Your task to perform on an android device: show emergency info Image 0: 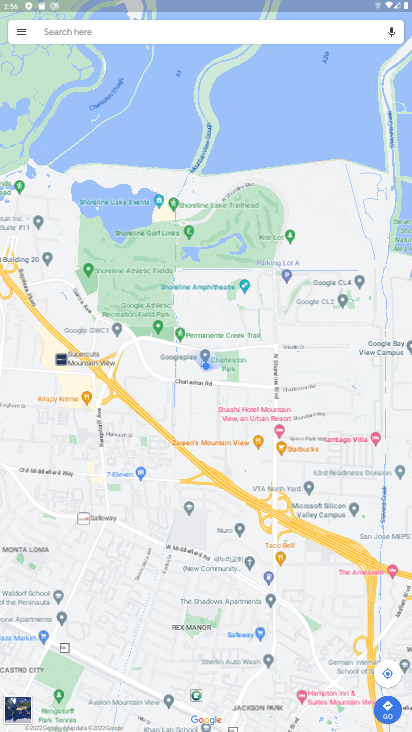
Step 0: press home button
Your task to perform on an android device: show emergency info Image 1: 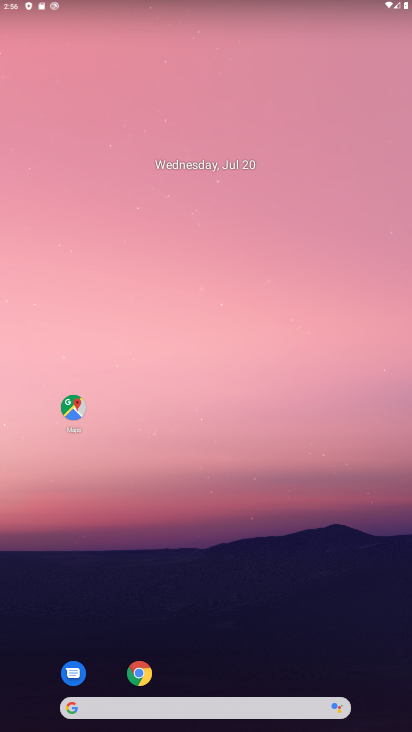
Step 1: drag from (255, 646) to (234, 57)
Your task to perform on an android device: show emergency info Image 2: 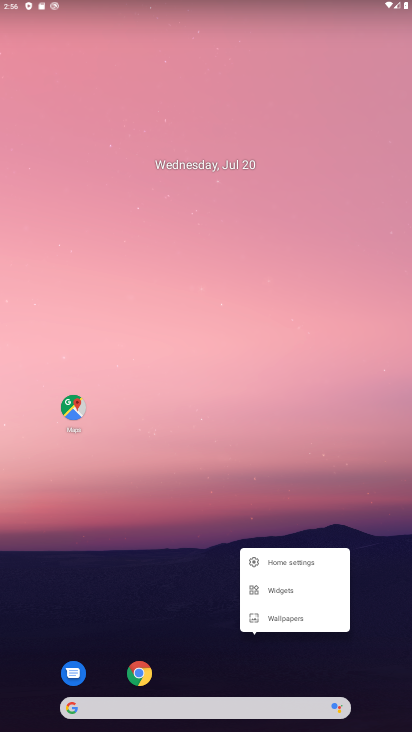
Step 2: drag from (167, 637) to (242, 237)
Your task to perform on an android device: show emergency info Image 3: 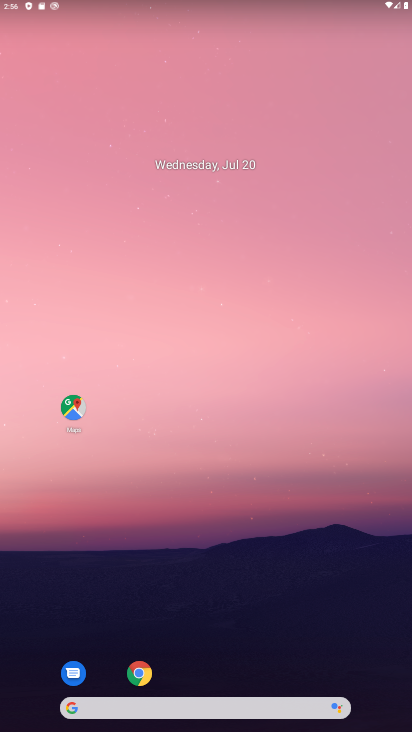
Step 3: drag from (242, 446) to (251, 186)
Your task to perform on an android device: show emergency info Image 4: 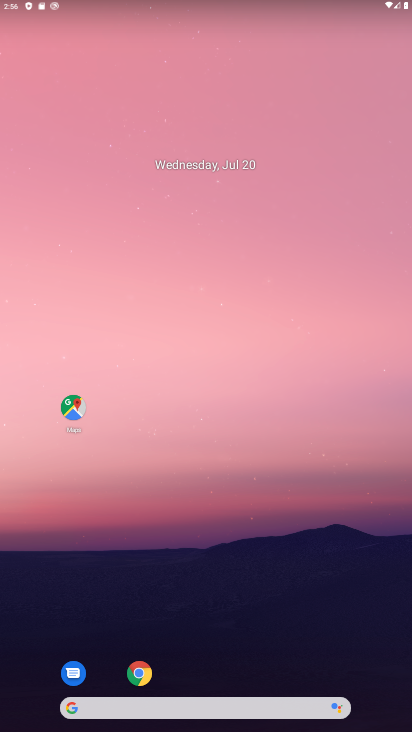
Step 4: drag from (241, 698) to (265, 146)
Your task to perform on an android device: show emergency info Image 5: 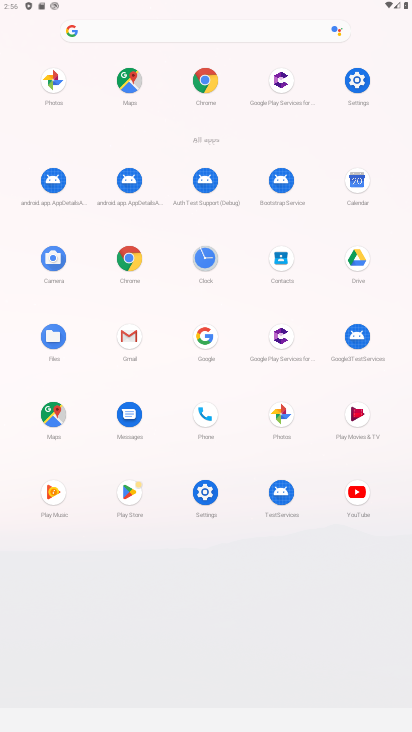
Step 5: click (358, 72)
Your task to perform on an android device: show emergency info Image 6: 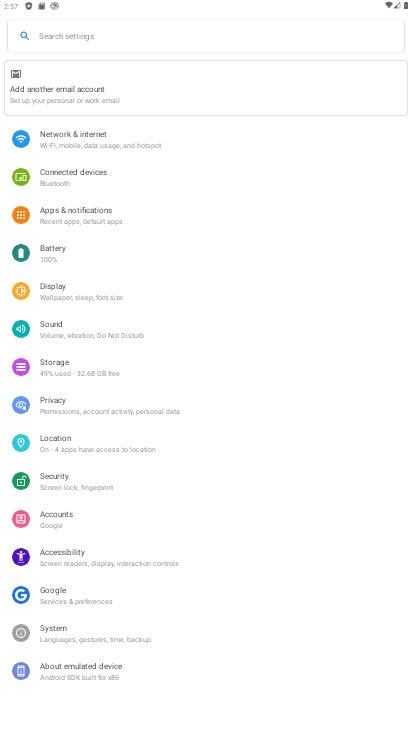
Step 6: click (59, 666)
Your task to perform on an android device: show emergency info Image 7: 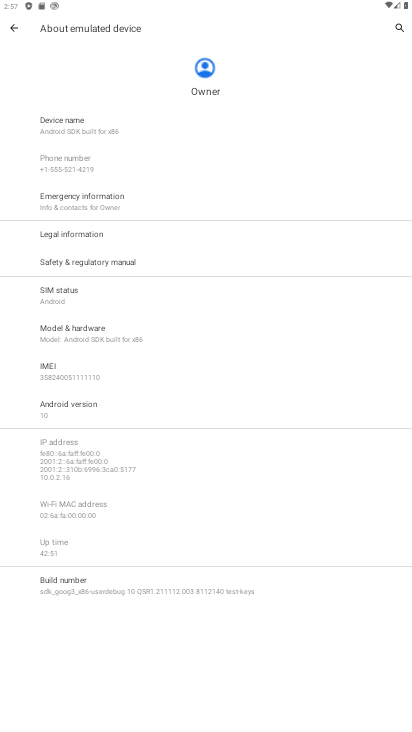
Step 7: click (25, 23)
Your task to perform on an android device: show emergency info Image 8: 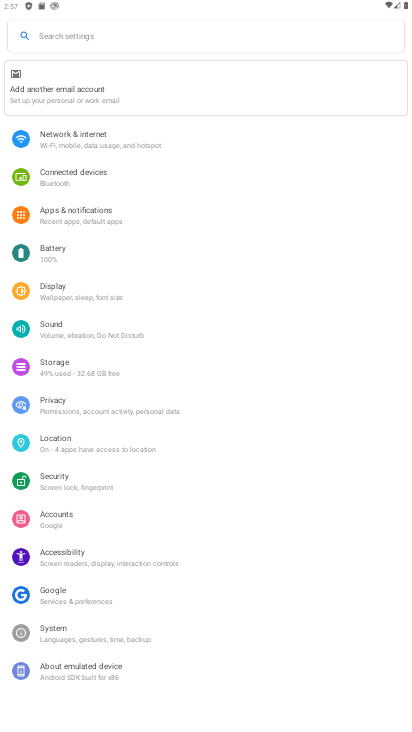
Step 8: click (81, 671)
Your task to perform on an android device: show emergency info Image 9: 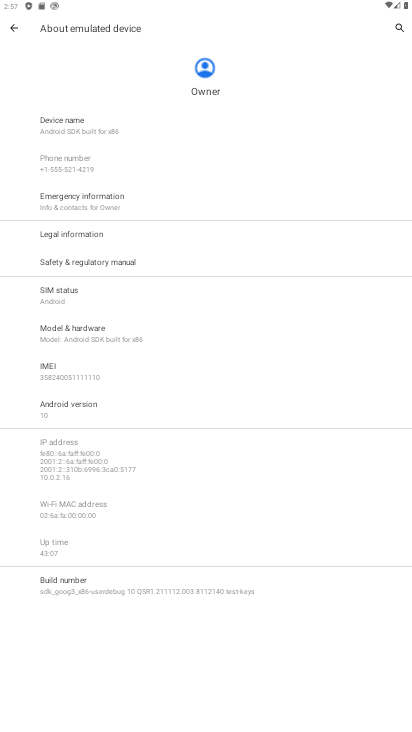
Step 9: click (82, 187)
Your task to perform on an android device: show emergency info Image 10: 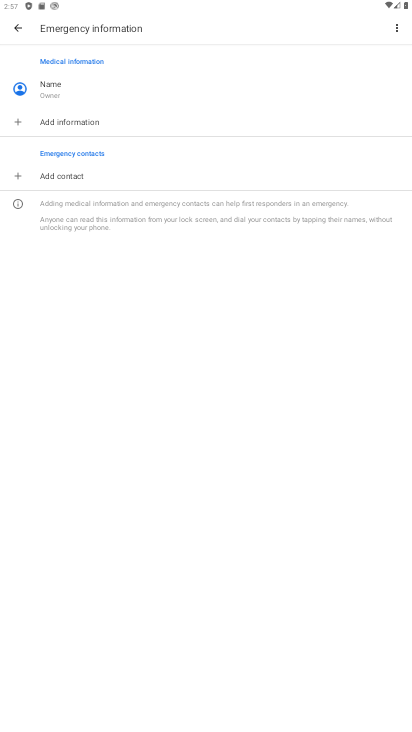
Step 10: task complete